Your task to perform on an android device: What's on the menu at Taco Bell? Image 0: 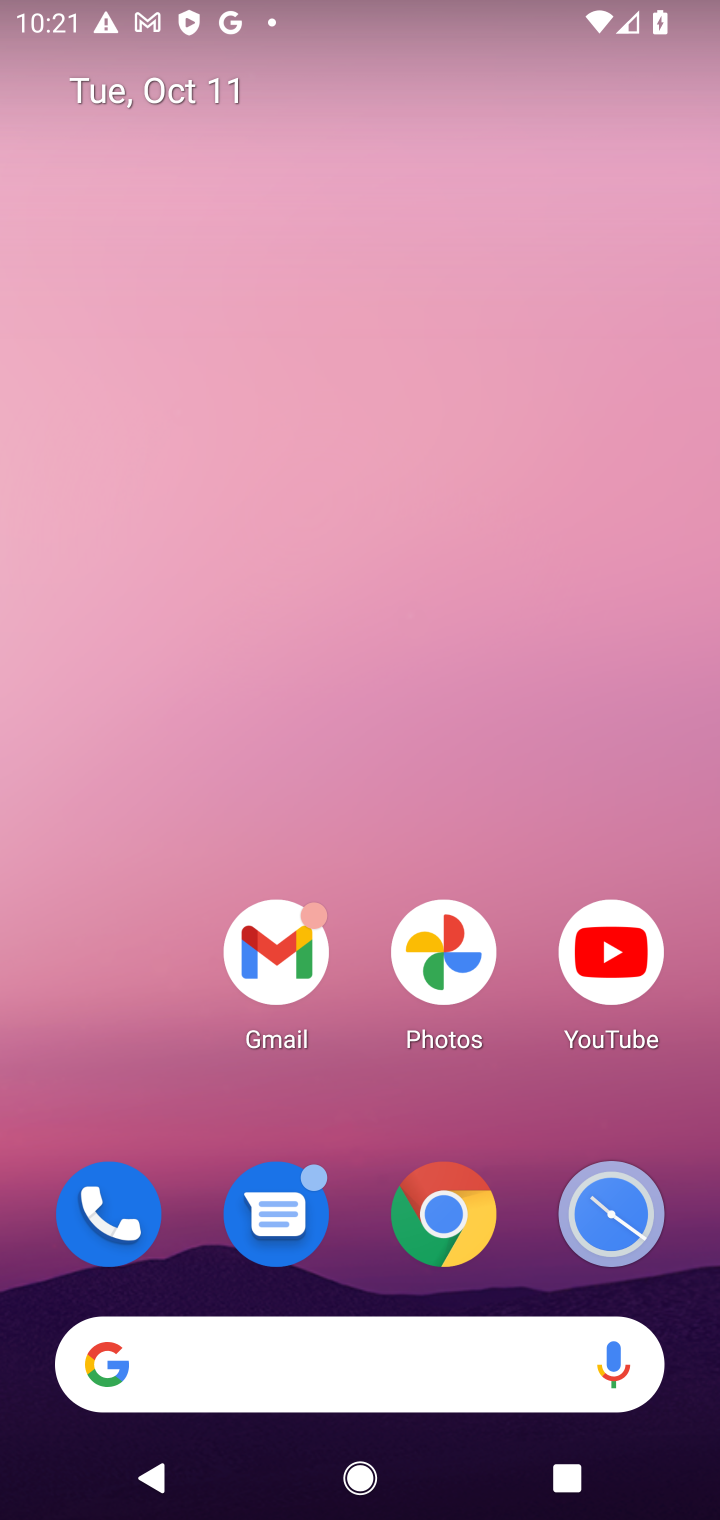
Step 0: drag from (373, 813) to (325, 251)
Your task to perform on an android device: What's on the menu at Taco Bell? Image 1: 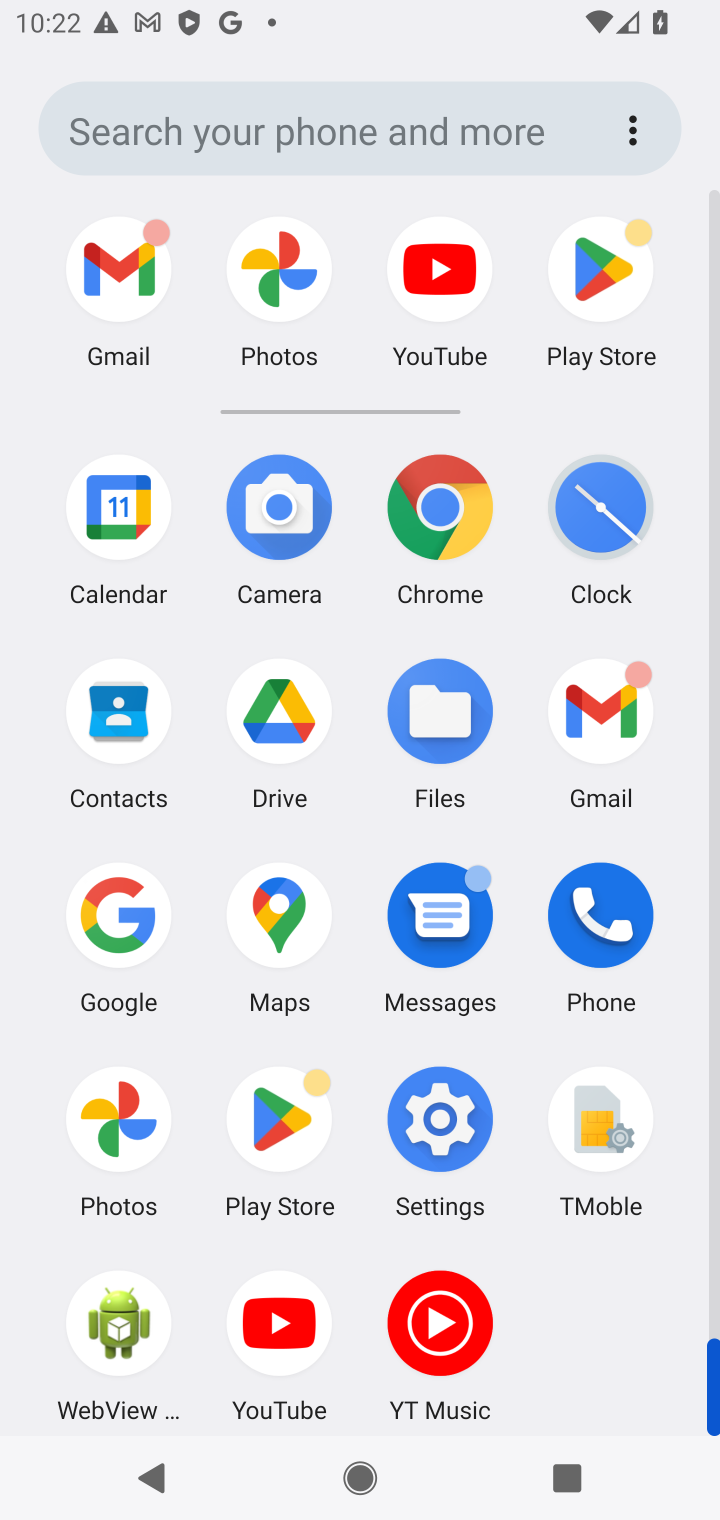
Step 1: click (445, 508)
Your task to perform on an android device: What's on the menu at Taco Bell? Image 2: 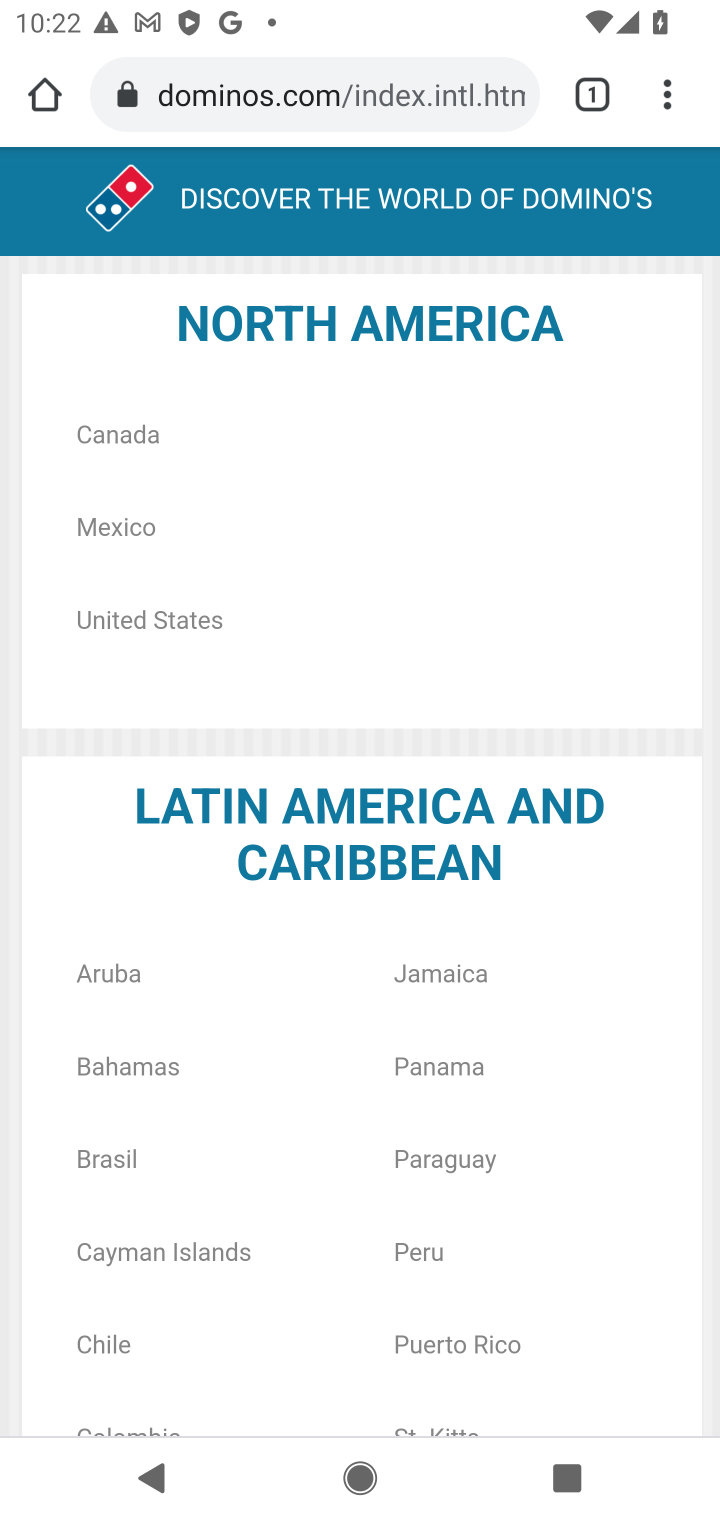
Step 2: click (283, 94)
Your task to perform on an android device: What's on the menu at Taco Bell? Image 3: 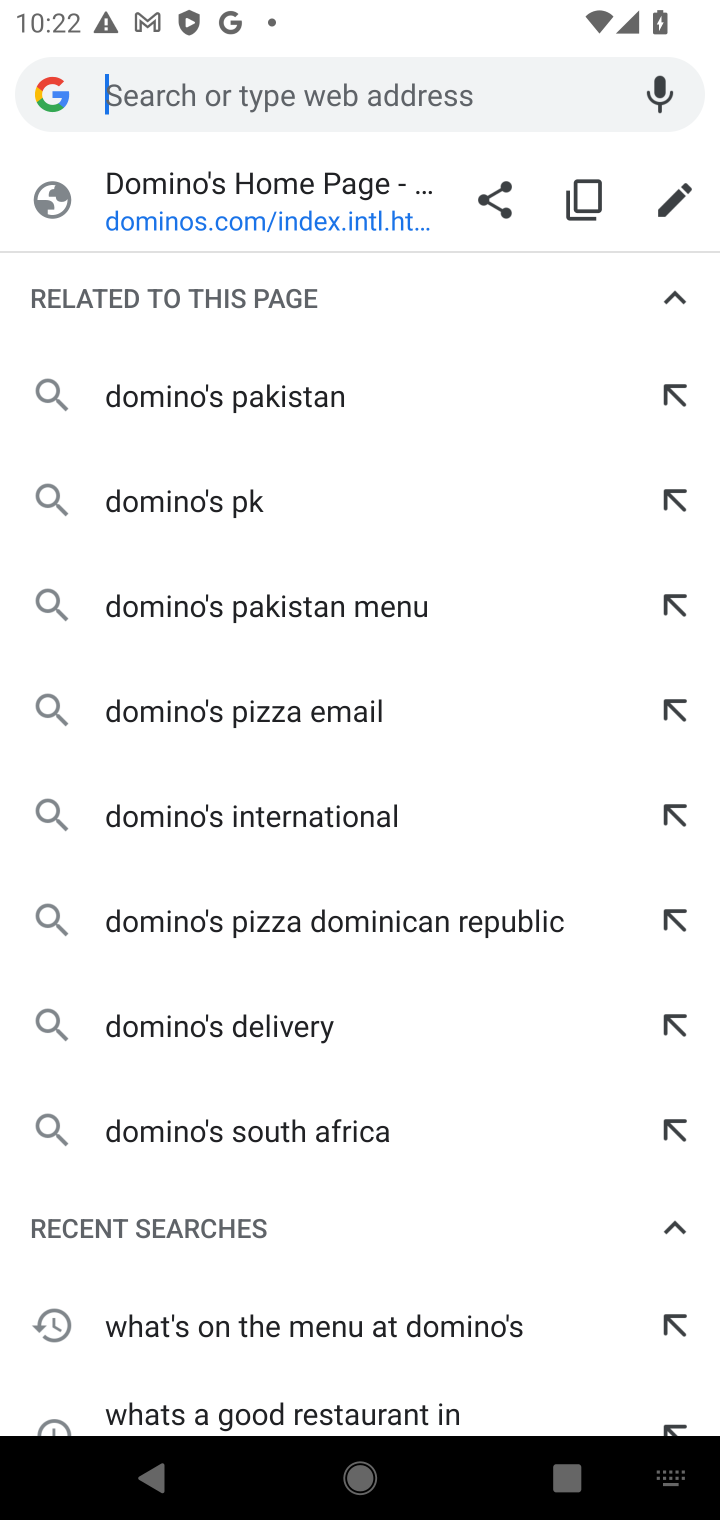
Step 3: type "What's on the menu at Taco Bell?"
Your task to perform on an android device: What's on the menu at Taco Bell? Image 4: 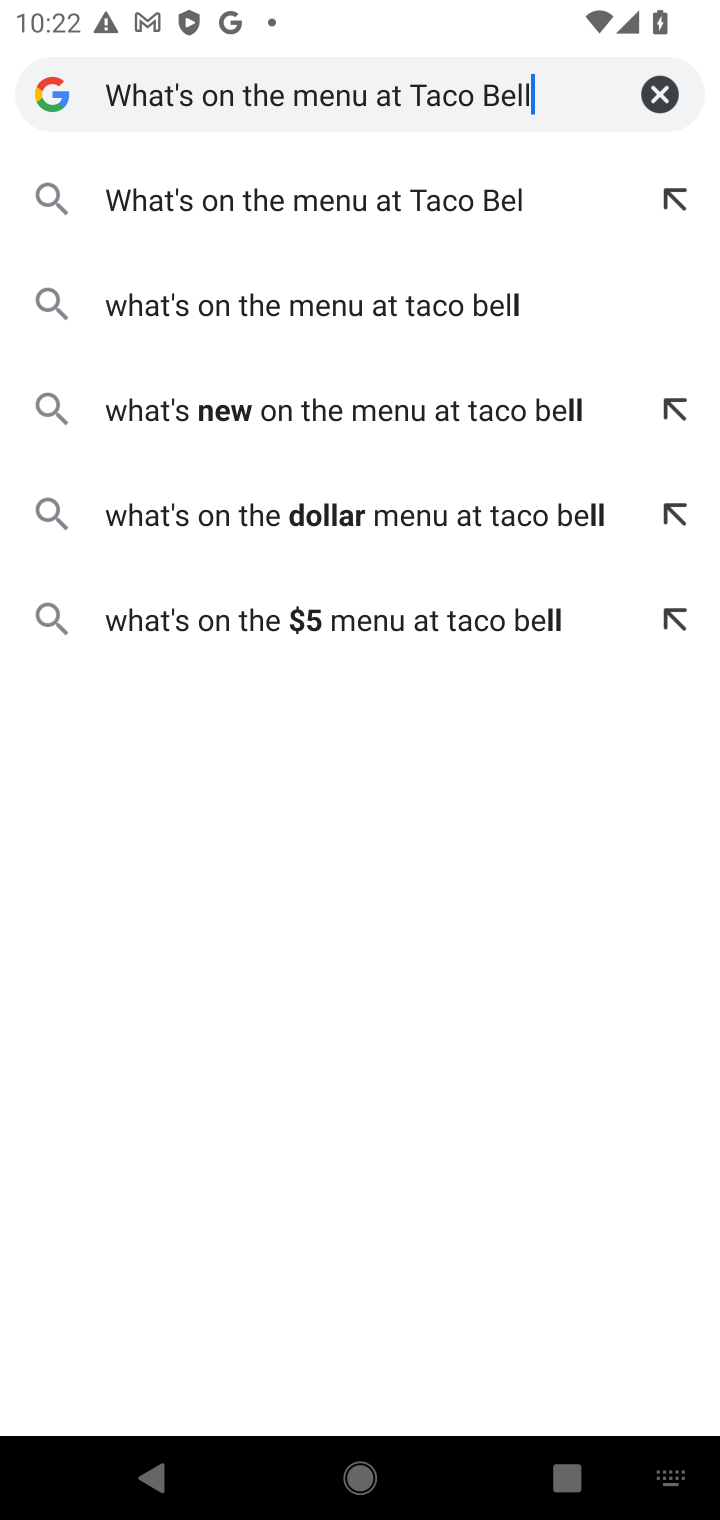
Step 4: press enter
Your task to perform on an android device: What's on the menu at Taco Bell? Image 5: 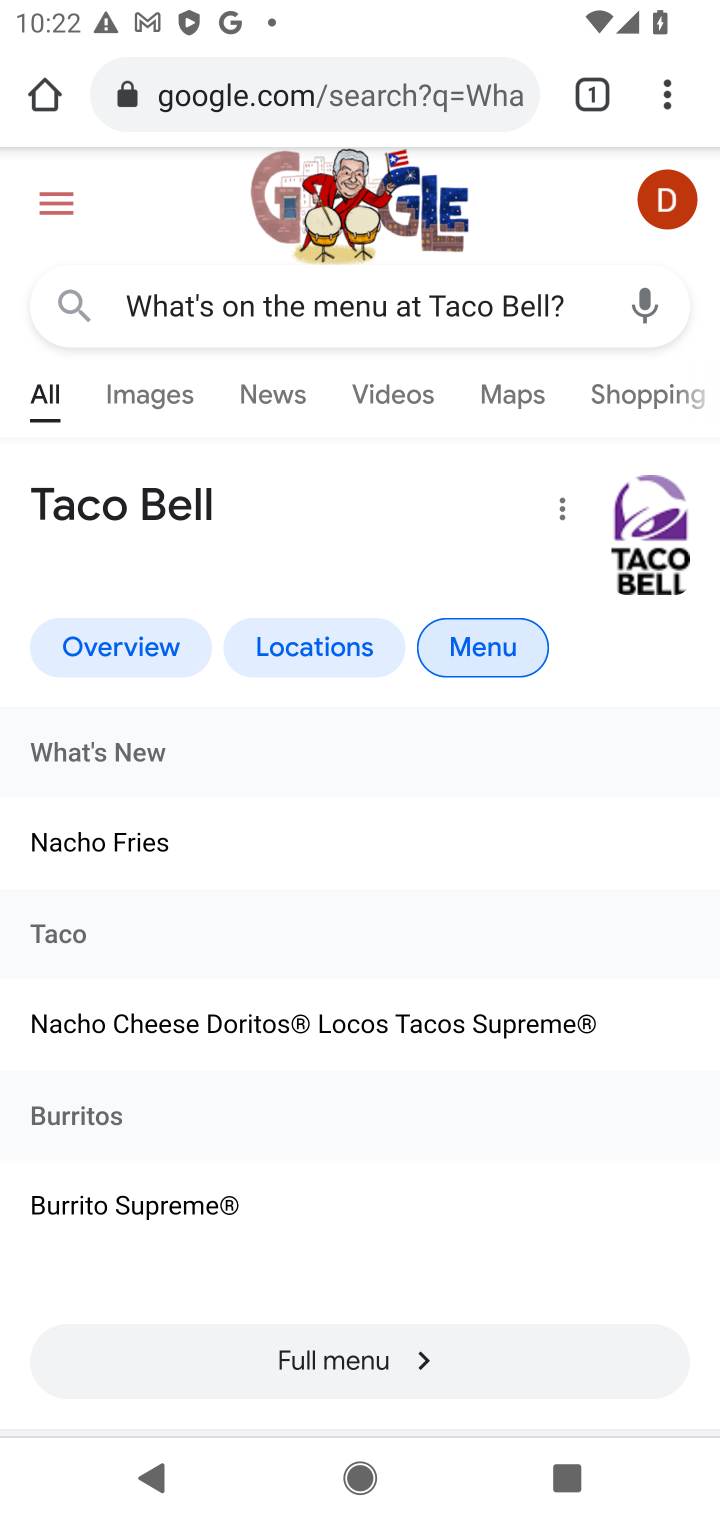
Step 5: click (352, 1351)
Your task to perform on an android device: What's on the menu at Taco Bell? Image 6: 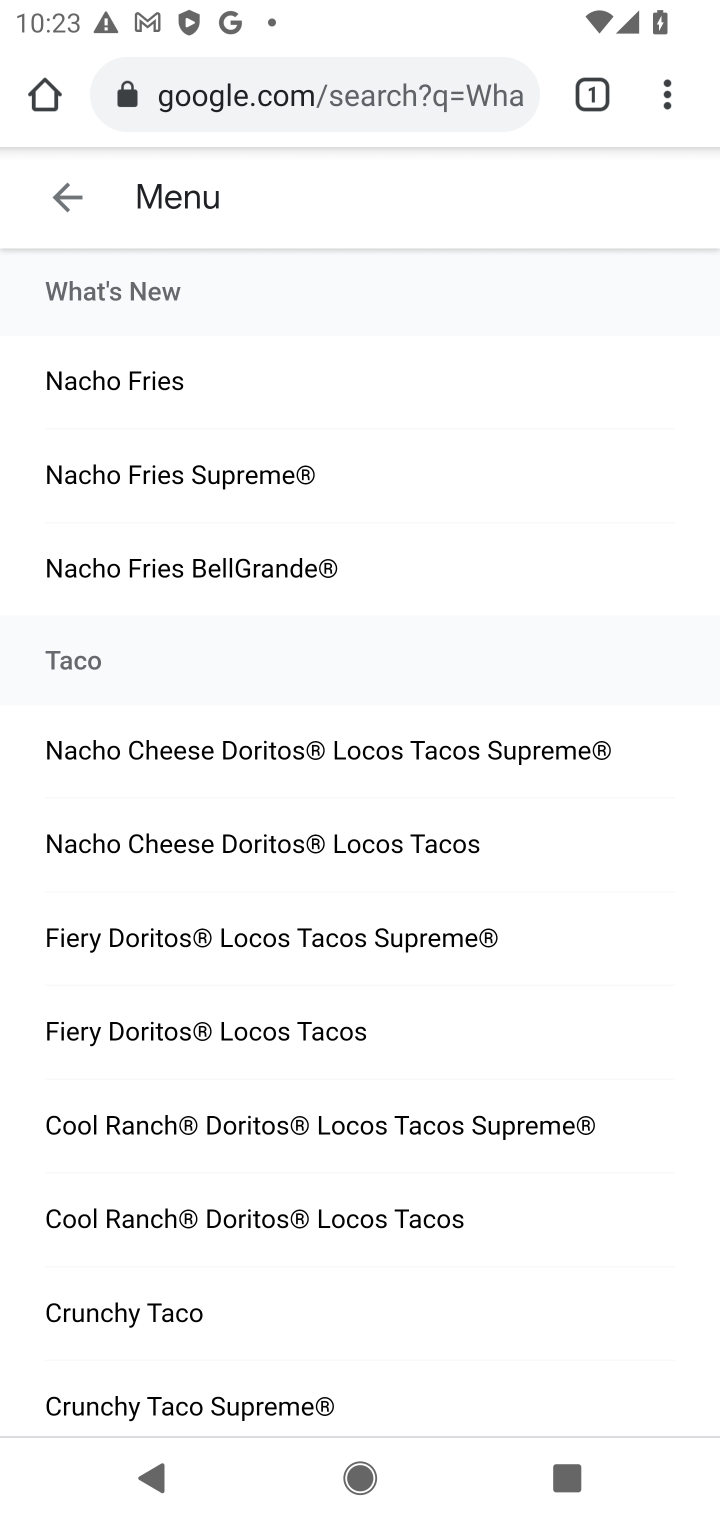
Step 6: task complete